Your task to perform on an android device: Search for seafood restaurants on Google Maps Image 0: 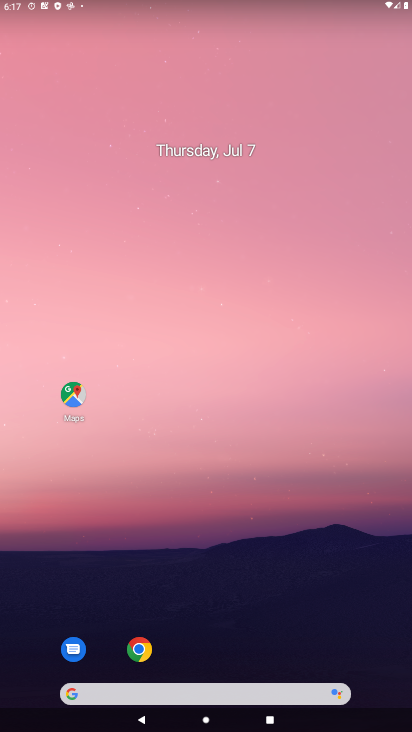
Step 0: drag from (365, 657) to (251, 25)
Your task to perform on an android device: Search for seafood restaurants on Google Maps Image 1: 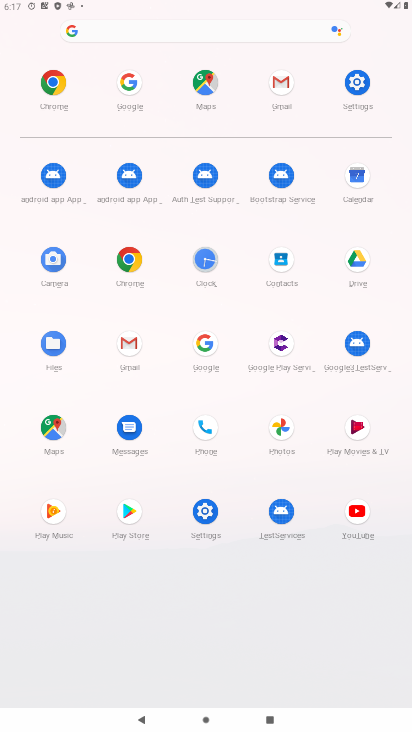
Step 1: click (58, 440)
Your task to perform on an android device: Search for seafood restaurants on Google Maps Image 2: 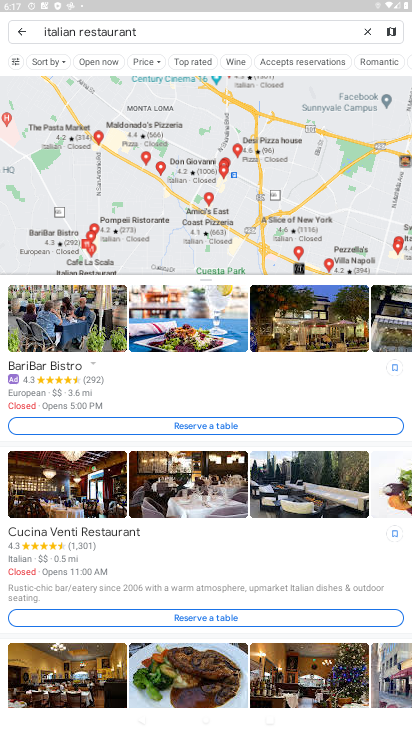
Step 2: click (364, 33)
Your task to perform on an android device: Search for seafood restaurants on Google Maps Image 3: 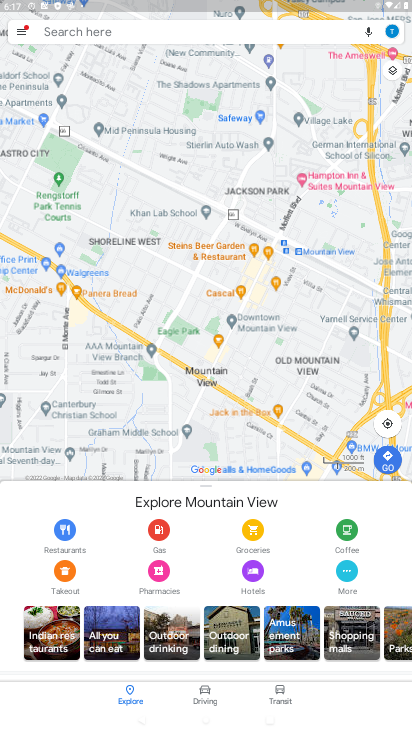
Step 3: click (116, 37)
Your task to perform on an android device: Search for seafood restaurants on Google Maps Image 4: 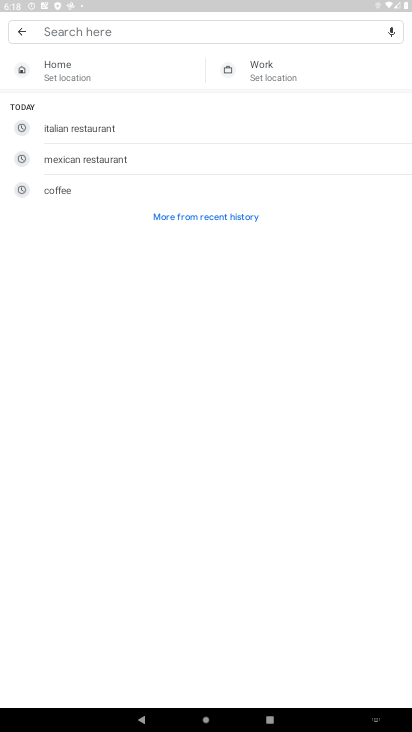
Step 4: type "seafood restaurants"
Your task to perform on an android device: Search for seafood restaurants on Google Maps Image 5: 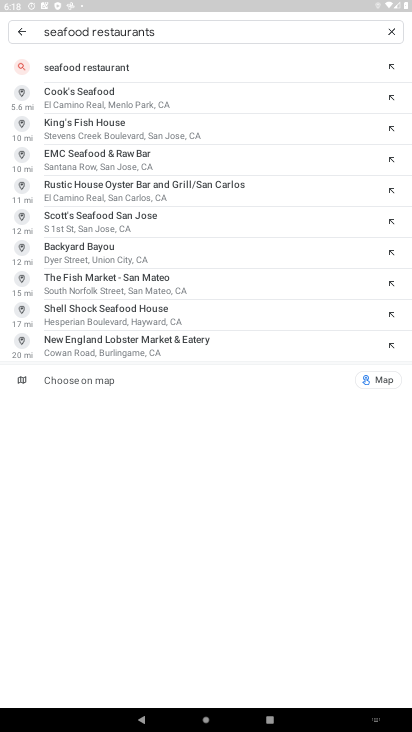
Step 5: click (125, 71)
Your task to perform on an android device: Search for seafood restaurants on Google Maps Image 6: 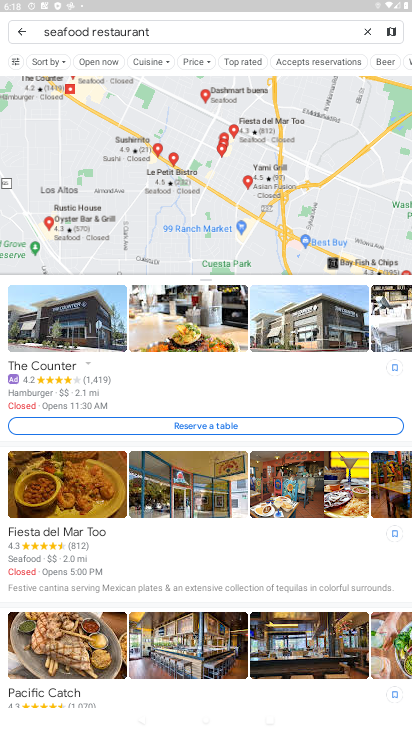
Step 6: task complete